Your task to perform on an android device: Search for vegetarian restaurants on Maps Image 0: 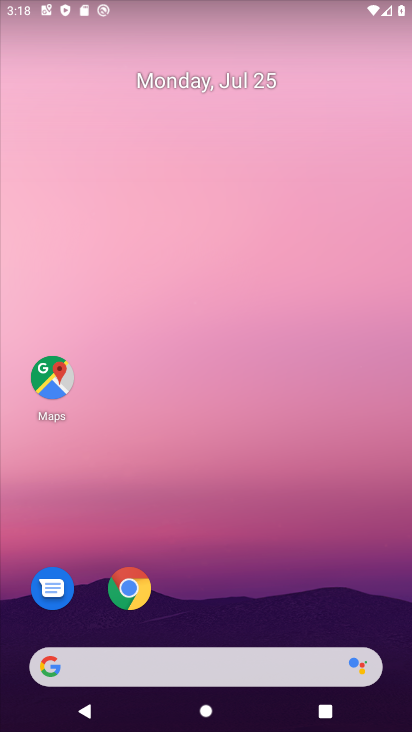
Step 0: drag from (285, 610) to (151, 23)
Your task to perform on an android device: Search for vegetarian restaurants on Maps Image 1: 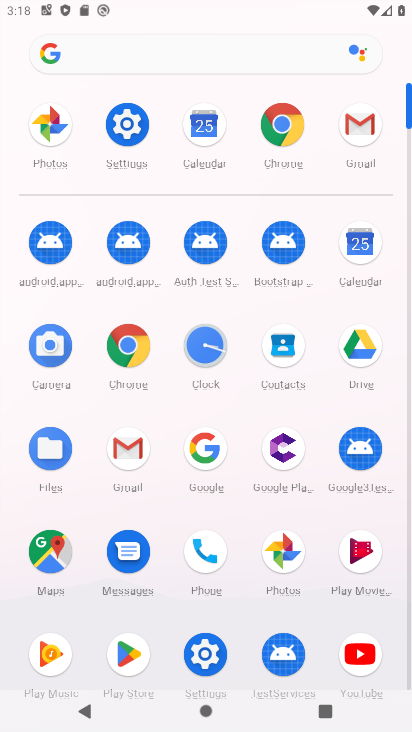
Step 1: click (61, 546)
Your task to perform on an android device: Search for vegetarian restaurants on Maps Image 2: 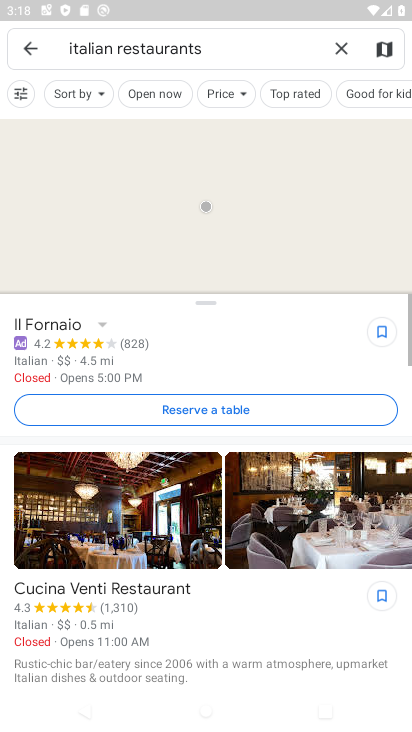
Step 2: click (341, 51)
Your task to perform on an android device: Search for vegetarian restaurants on Maps Image 3: 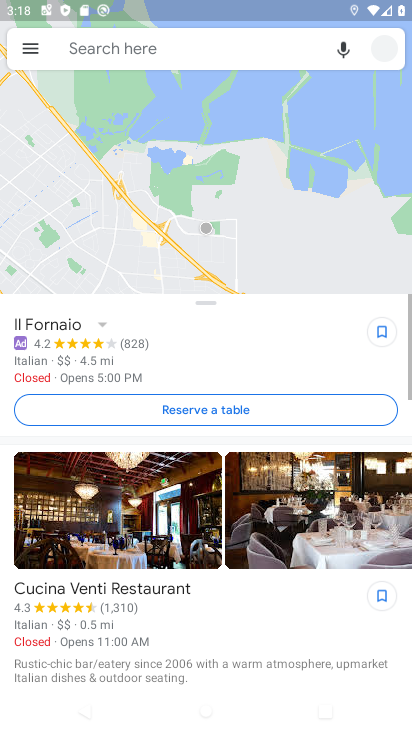
Step 3: click (256, 54)
Your task to perform on an android device: Search for vegetarian restaurants on Maps Image 4: 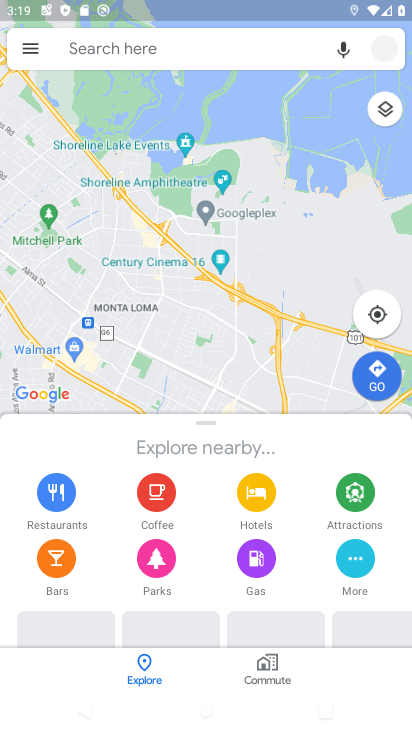
Step 4: click (158, 46)
Your task to perform on an android device: Search for vegetarian restaurants on Maps Image 5: 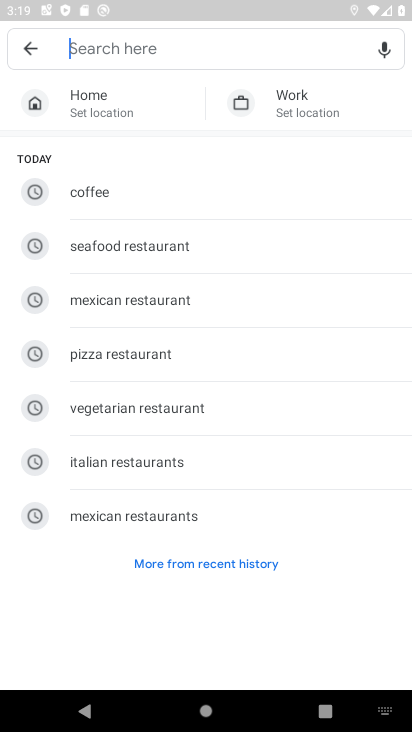
Step 5: type "vegetarian restaurants"
Your task to perform on an android device: Search for vegetarian restaurants on Maps Image 6: 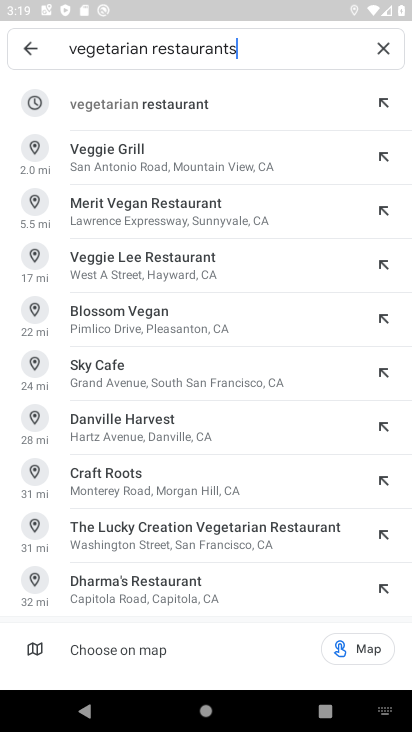
Step 6: press enter
Your task to perform on an android device: Search for vegetarian restaurants on Maps Image 7: 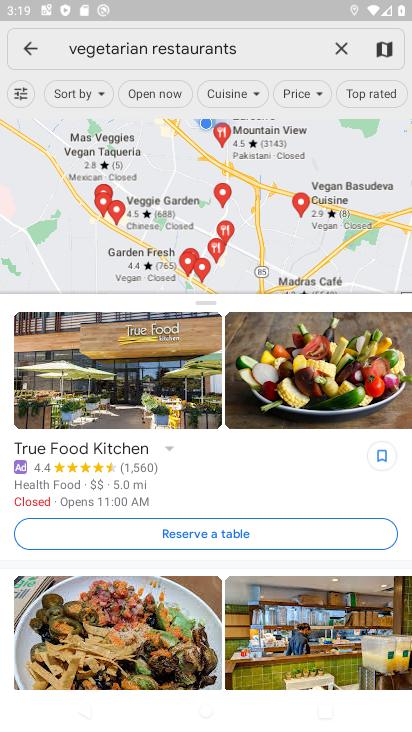
Step 7: task complete